Your task to perform on an android device: turn smart compose on in the gmail app Image 0: 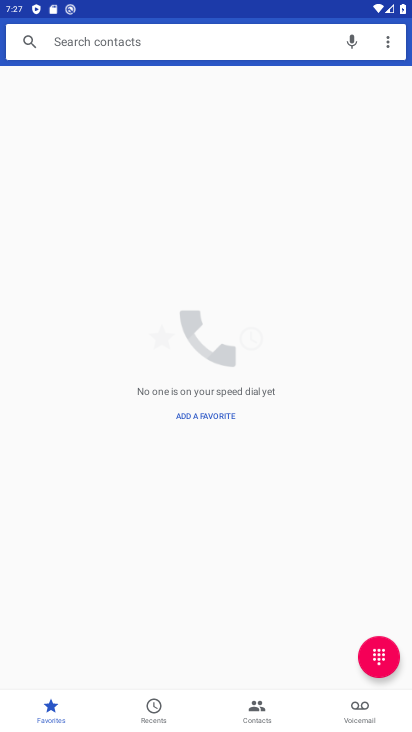
Step 0: press home button
Your task to perform on an android device: turn smart compose on in the gmail app Image 1: 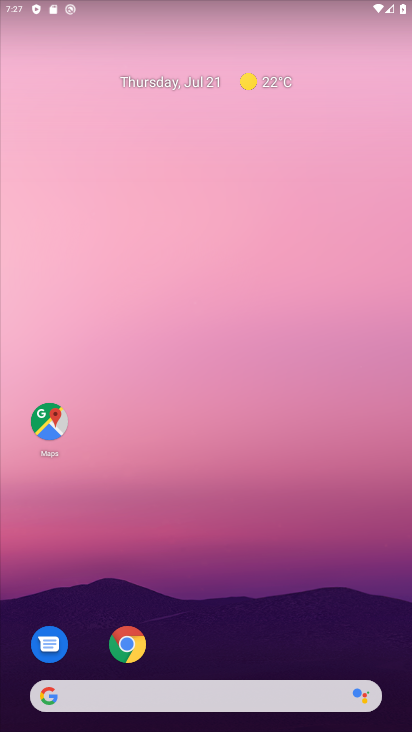
Step 1: drag from (347, 590) to (359, 253)
Your task to perform on an android device: turn smart compose on in the gmail app Image 2: 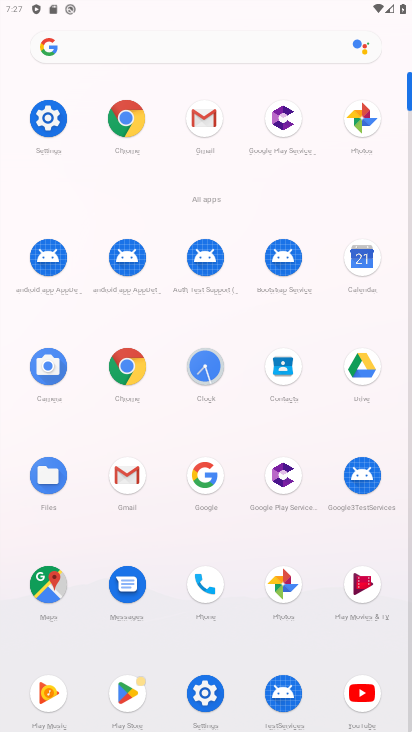
Step 2: click (131, 480)
Your task to perform on an android device: turn smart compose on in the gmail app Image 3: 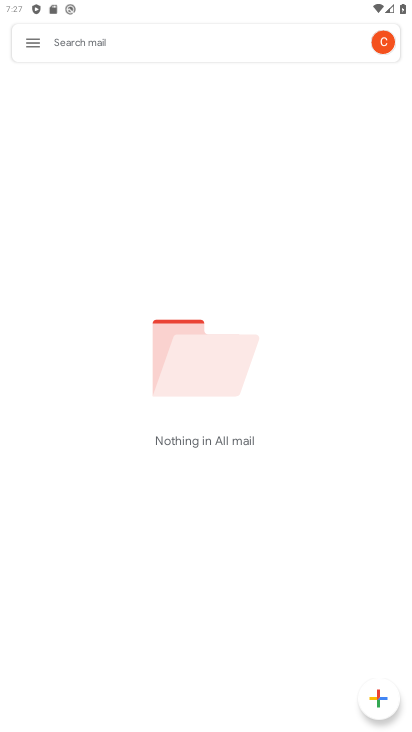
Step 3: click (31, 44)
Your task to perform on an android device: turn smart compose on in the gmail app Image 4: 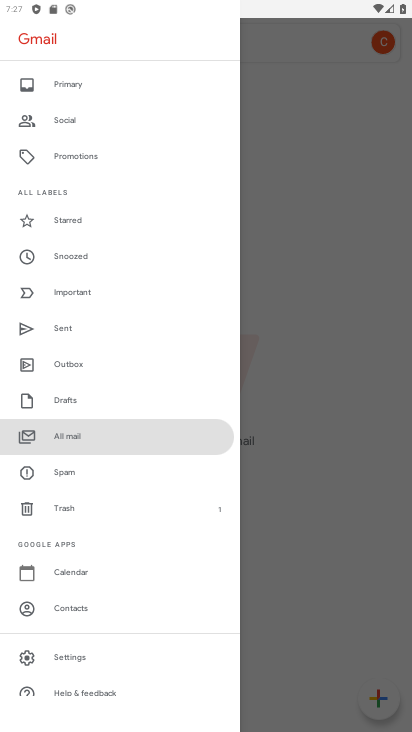
Step 4: drag from (165, 340) to (174, 269)
Your task to perform on an android device: turn smart compose on in the gmail app Image 5: 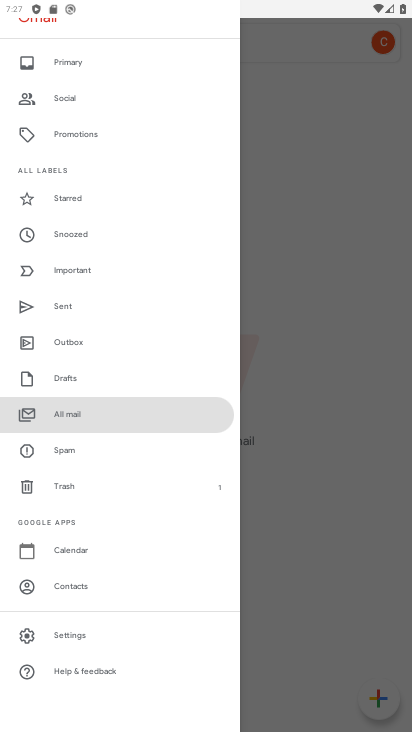
Step 5: click (136, 634)
Your task to perform on an android device: turn smart compose on in the gmail app Image 6: 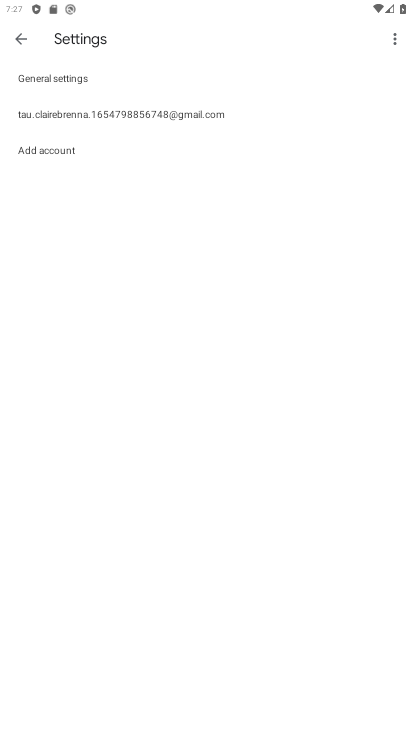
Step 6: click (242, 114)
Your task to perform on an android device: turn smart compose on in the gmail app Image 7: 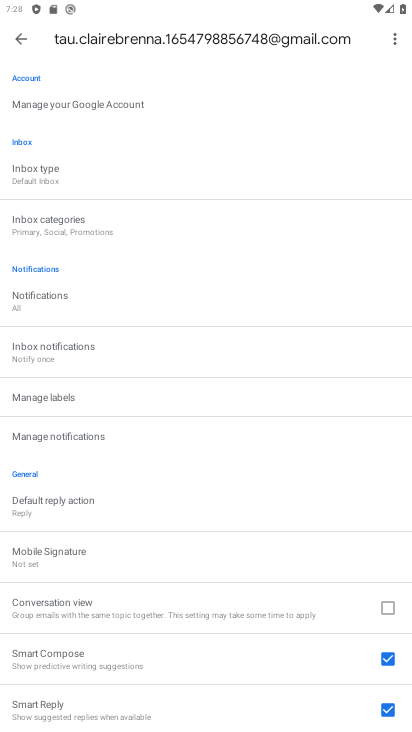
Step 7: task complete